Your task to perform on an android device: Open the Play Movies app and select the watchlist tab. Image 0: 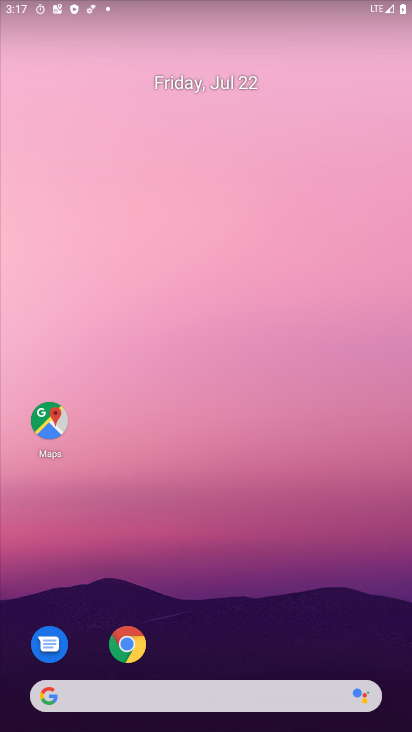
Step 0: press home button
Your task to perform on an android device: Open the Play Movies app and select the watchlist tab. Image 1: 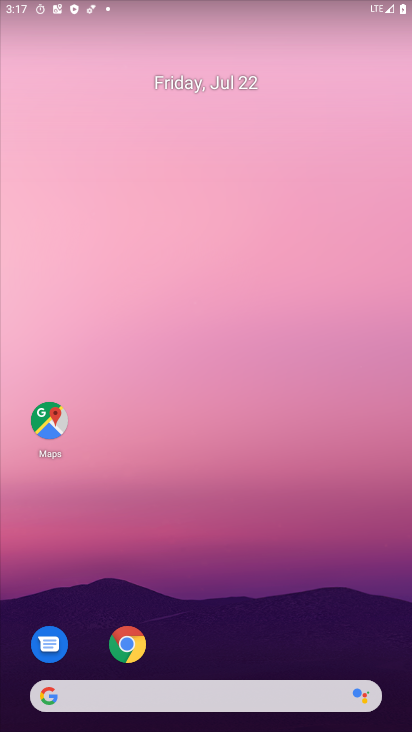
Step 1: drag from (236, 653) to (228, 176)
Your task to perform on an android device: Open the Play Movies app and select the watchlist tab. Image 2: 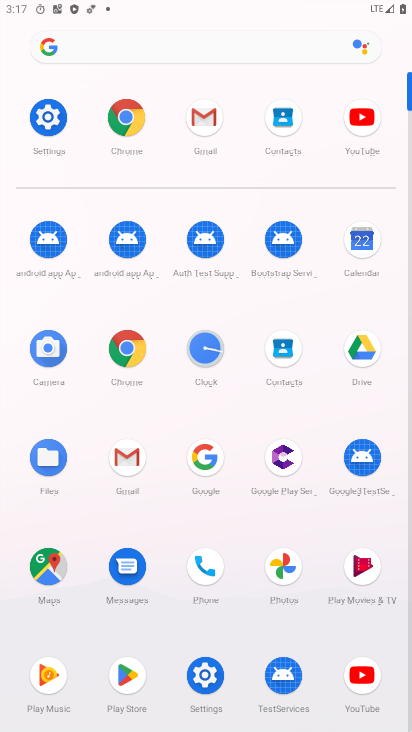
Step 2: click (367, 568)
Your task to perform on an android device: Open the Play Movies app and select the watchlist tab. Image 3: 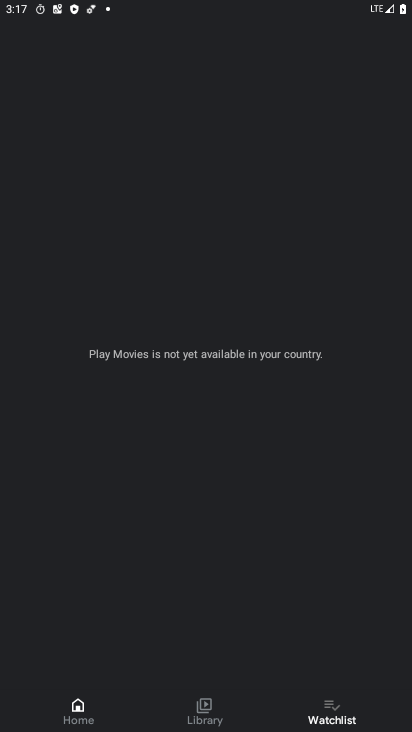
Step 3: click (338, 706)
Your task to perform on an android device: Open the Play Movies app and select the watchlist tab. Image 4: 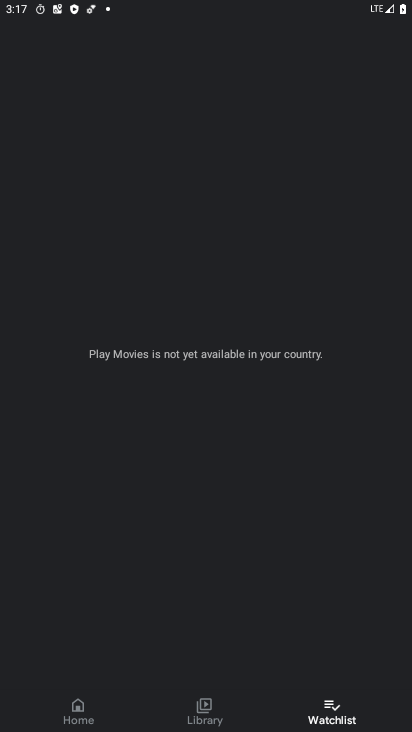
Step 4: task complete